Your task to perform on an android device: delete location history Image 0: 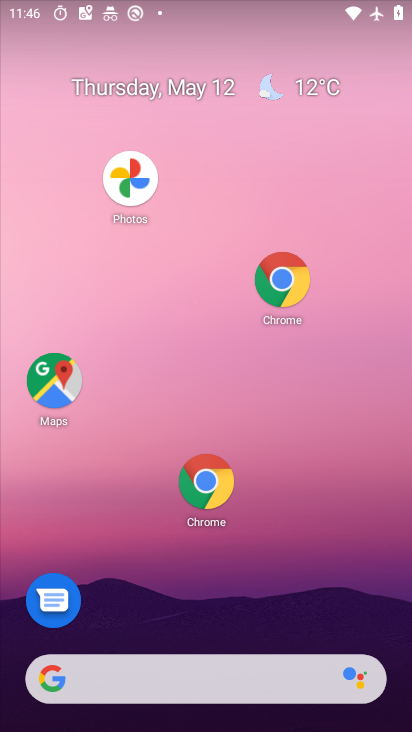
Step 0: drag from (212, 1) to (261, 13)
Your task to perform on an android device: delete location history Image 1: 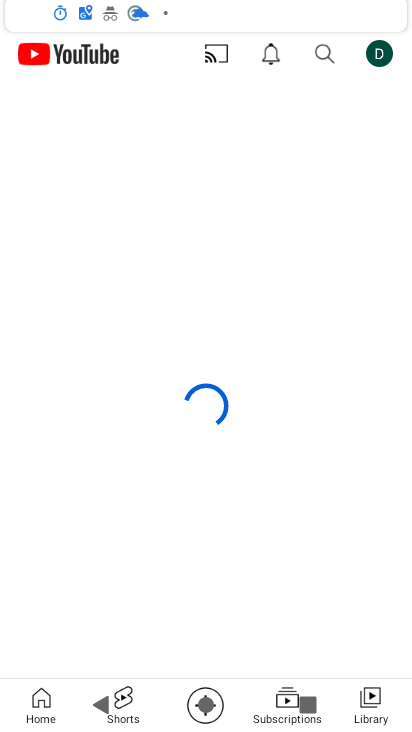
Step 1: drag from (276, 516) to (168, 76)
Your task to perform on an android device: delete location history Image 2: 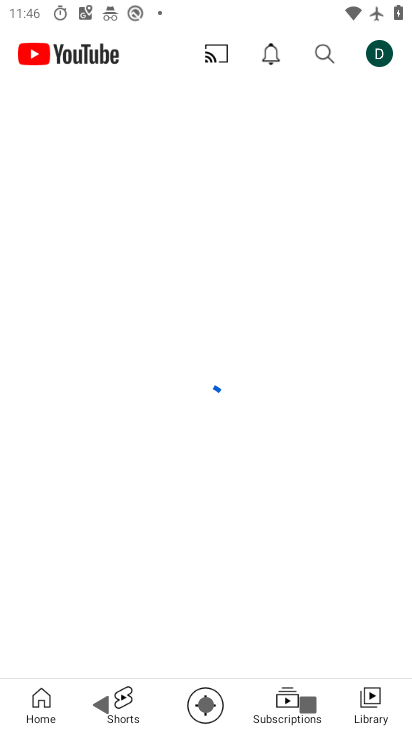
Step 2: drag from (278, 503) to (265, 44)
Your task to perform on an android device: delete location history Image 3: 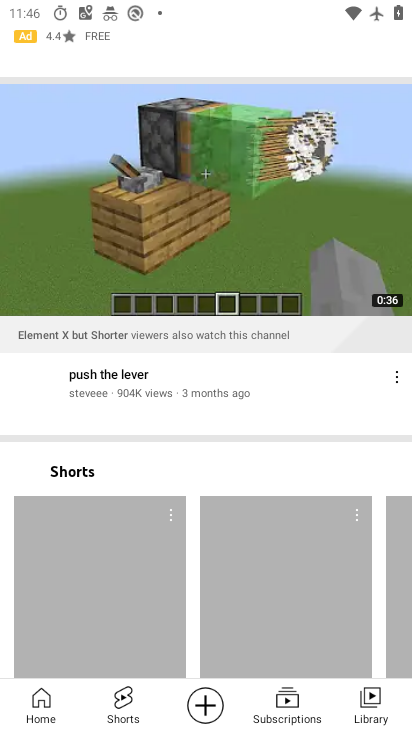
Step 3: drag from (289, 328) to (267, 160)
Your task to perform on an android device: delete location history Image 4: 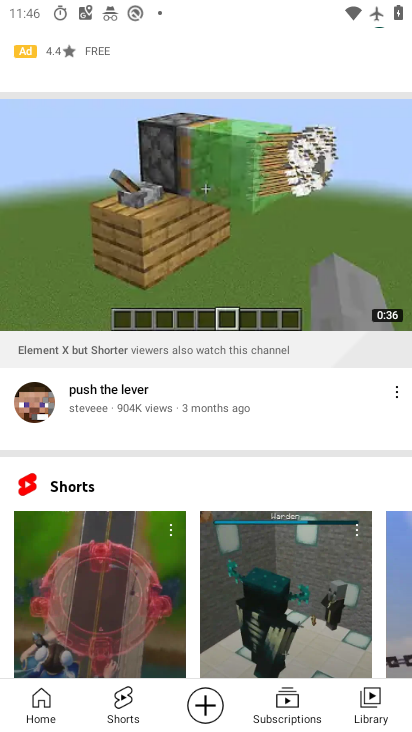
Step 4: press back button
Your task to perform on an android device: delete location history Image 5: 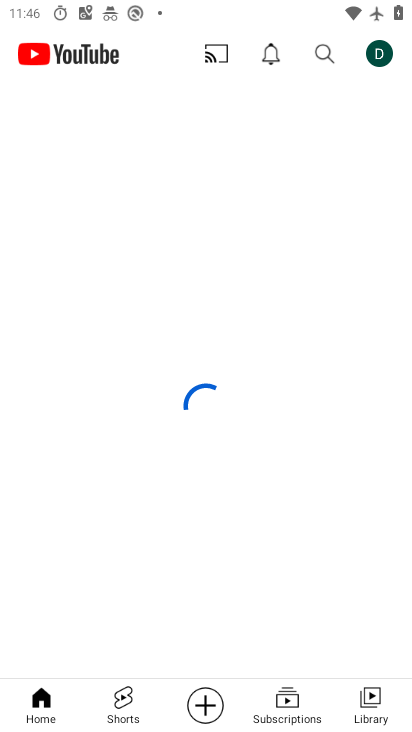
Step 5: drag from (220, 545) to (187, 226)
Your task to perform on an android device: delete location history Image 6: 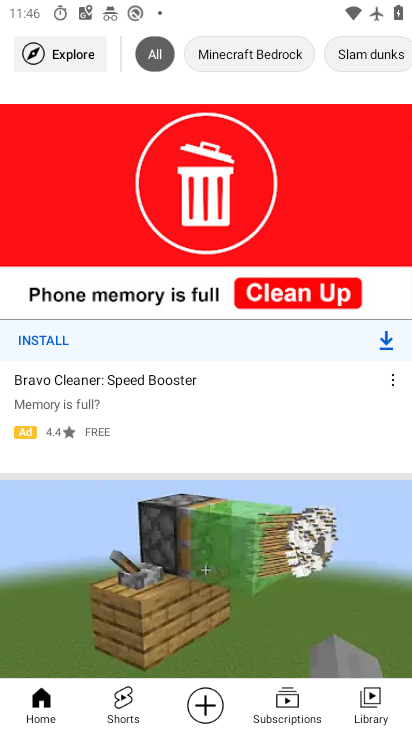
Step 6: drag from (244, 487) to (188, 225)
Your task to perform on an android device: delete location history Image 7: 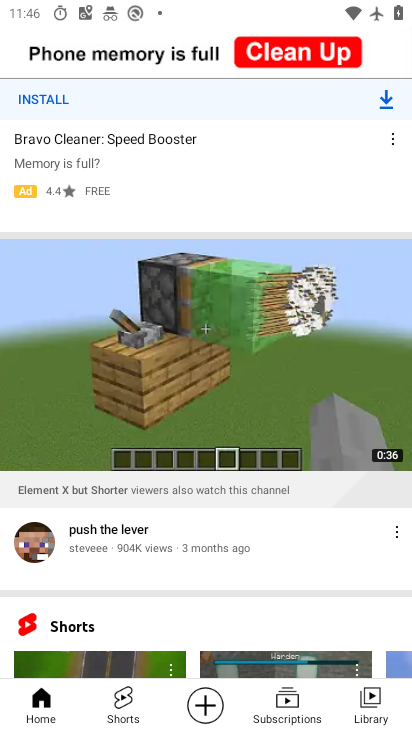
Step 7: drag from (268, 531) to (278, 279)
Your task to perform on an android device: delete location history Image 8: 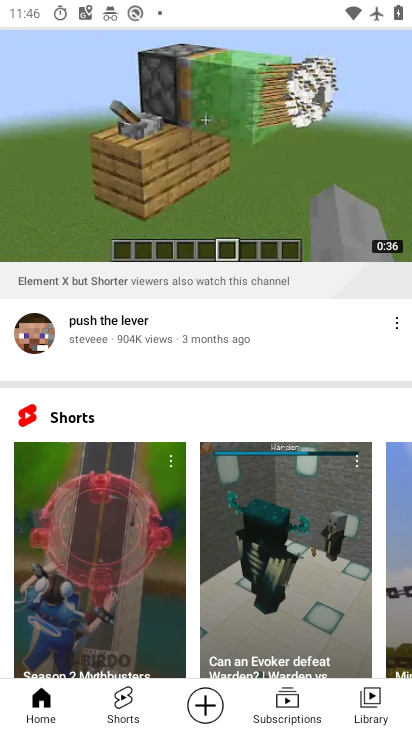
Step 8: drag from (306, 464) to (235, 167)
Your task to perform on an android device: delete location history Image 9: 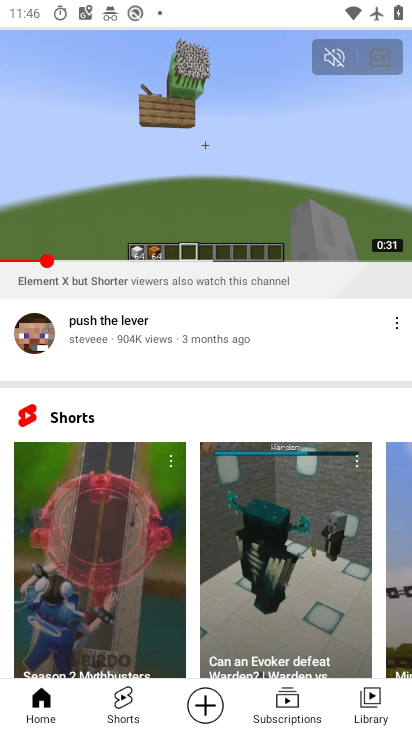
Step 9: press home button
Your task to perform on an android device: delete location history Image 10: 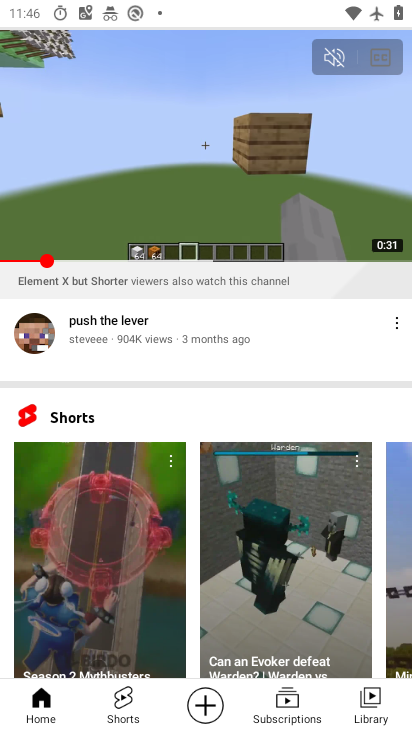
Step 10: press home button
Your task to perform on an android device: delete location history Image 11: 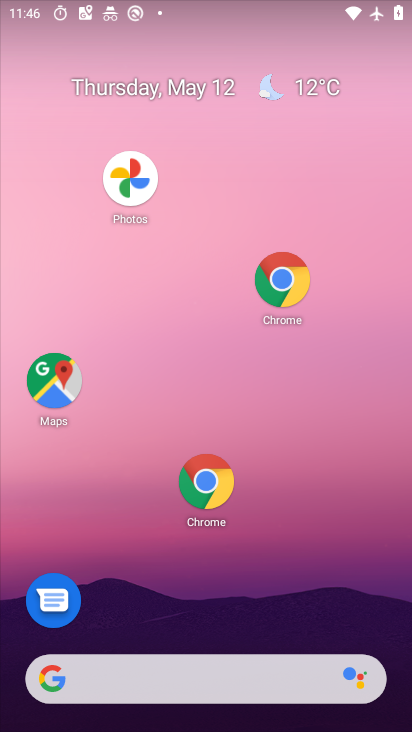
Step 11: drag from (343, 550) to (278, 75)
Your task to perform on an android device: delete location history Image 12: 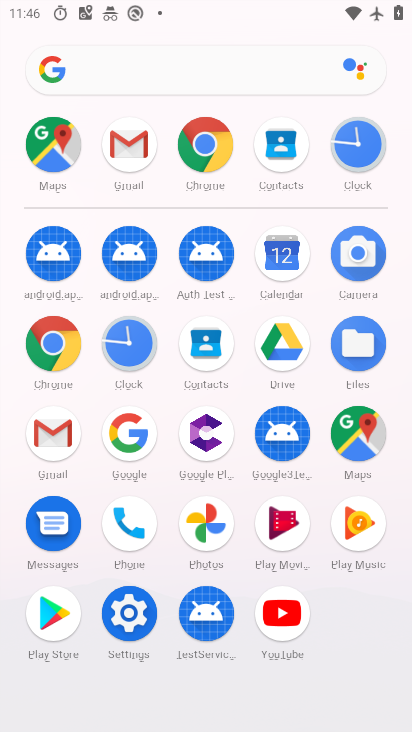
Step 12: click (352, 413)
Your task to perform on an android device: delete location history Image 13: 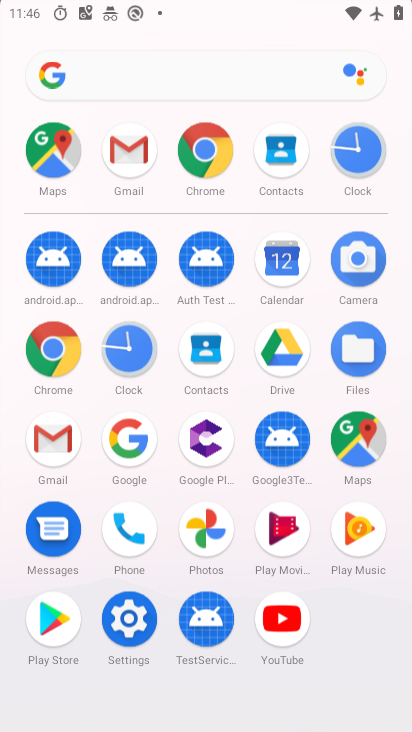
Step 13: click (358, 426)
Your task to perform on an android device: delete location history Image 14: 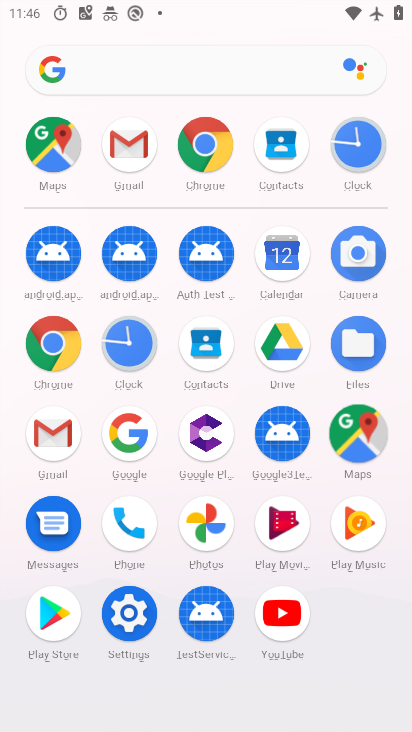
Step 14: click (360, 426)
Your task to perform on an android device: delete location history Image 15: 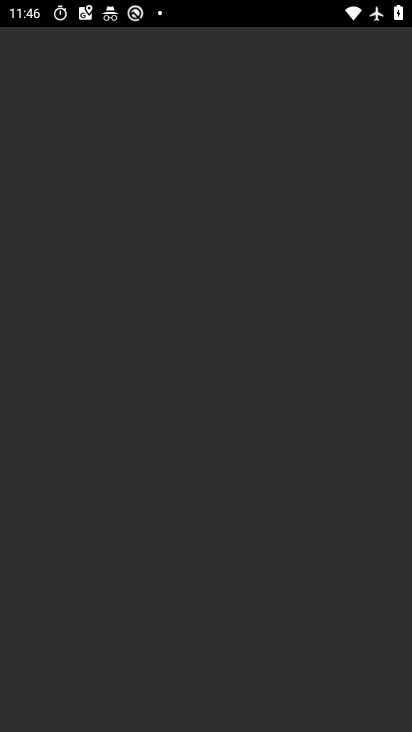
Step 15: click (362, 429)
Your task to perform on an android device: delete location history Image 16: 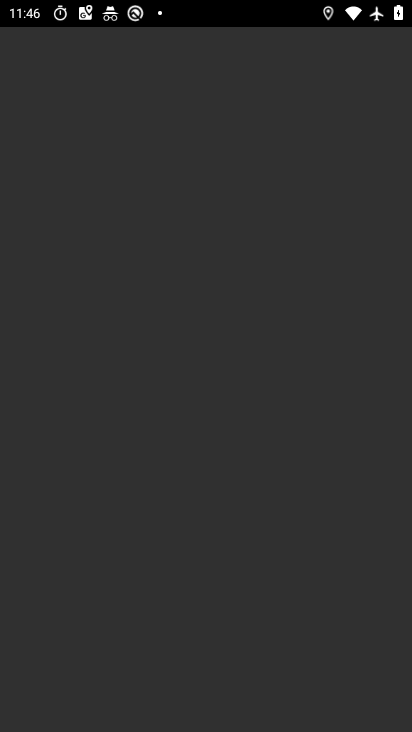
Step 16: click (367, 416)
Your task to perform on an android device: delete location history Image 17: 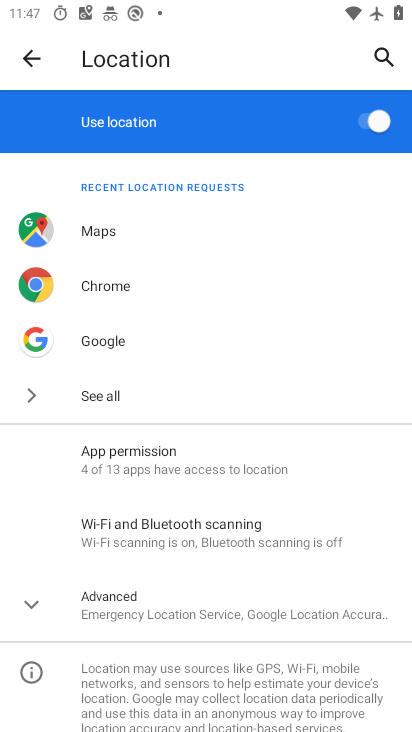
Step 17: click (44, 58)
Your task to perform on an android device: delete location history Image 18: 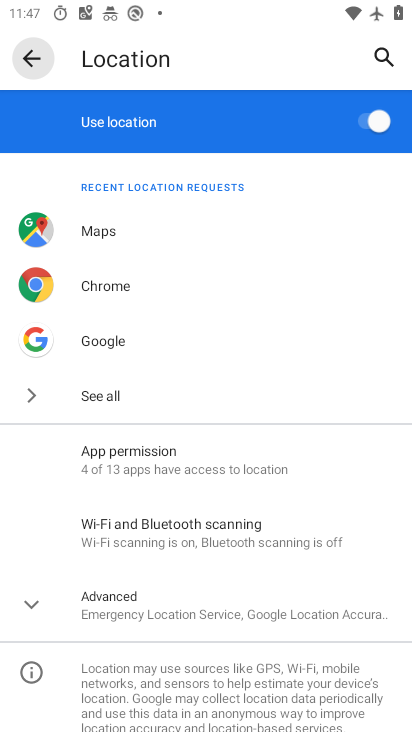
Step 18: click (41, 56)
Your task to perform on an android device: delete location history Image 19: 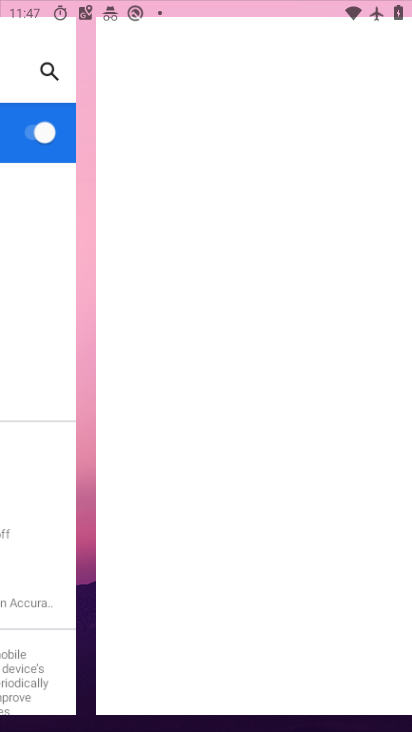
Step 19: click (41, 56)
Your task to perform on an android device: delete location history Image 20: 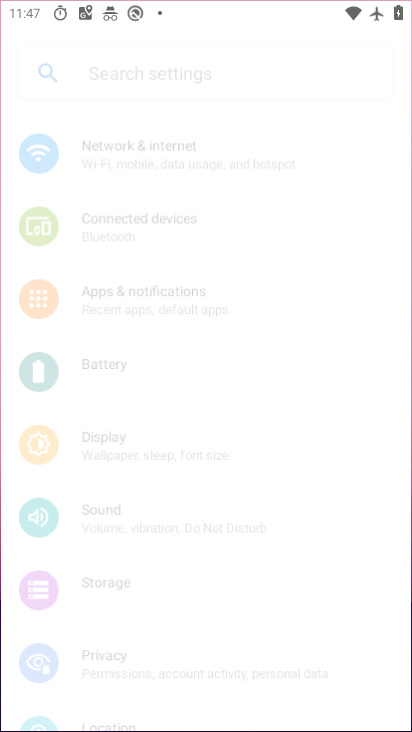
Step 20: click (44, 58)
Your task to perform on an android device: delete location history Image 21: 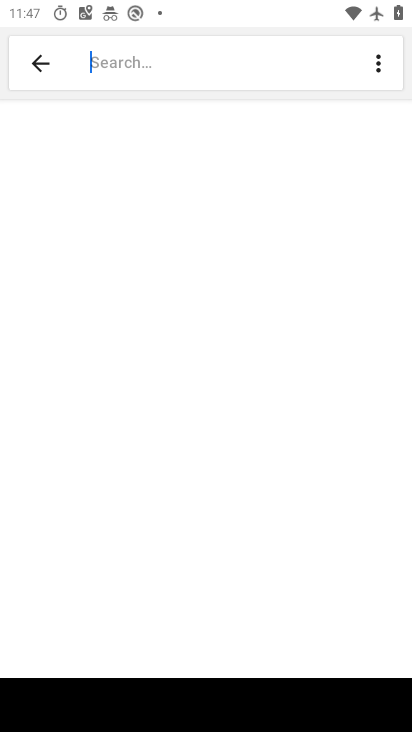
Step 21: click (35, 66)
Your task to perform on an android device: delete location history Image 22: 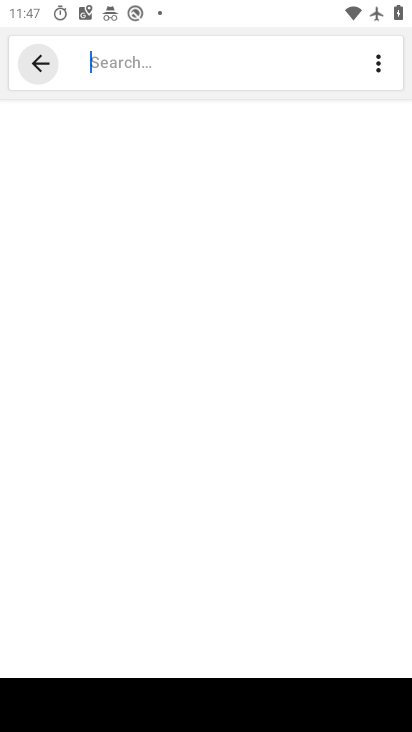
Step 22: click (35, 66)
Your task to perform on an android device: delete location history Image 23: 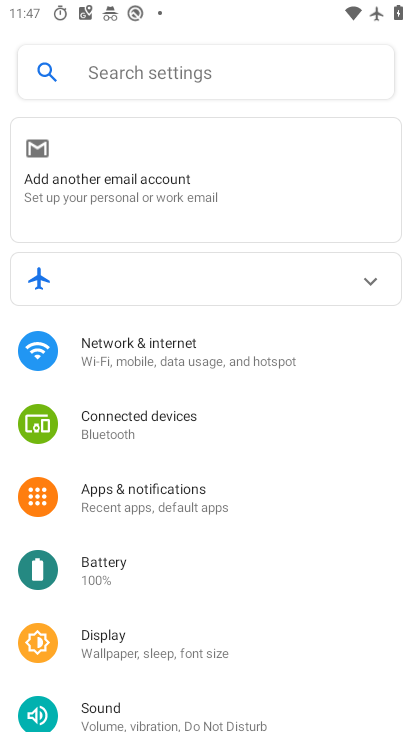
Step 23: drag from (184, 545) to (189, 259)
Your task to perform on an android device: delete location history Image 24: 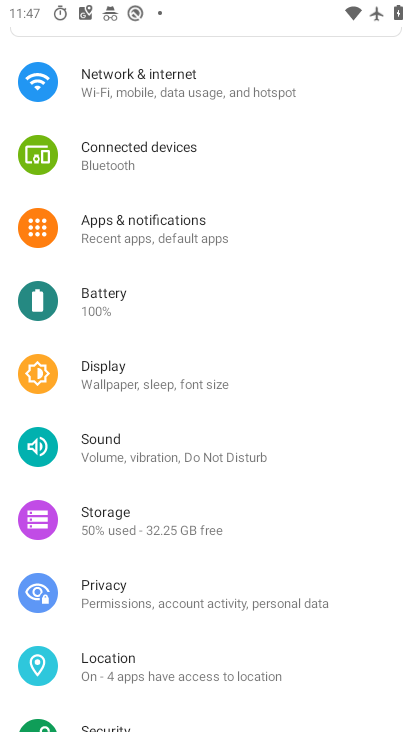
Step 24: drag from (274, 528) to (268, 277)
Your task to perform on an android device: delete location history Image 25: 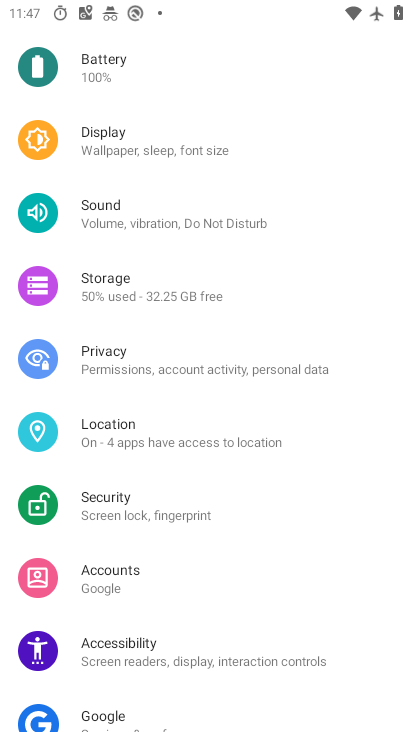
Step 25: drag from (296, 458) to (329, 91)
Your task to perform on an android device: delete location history Image 26: 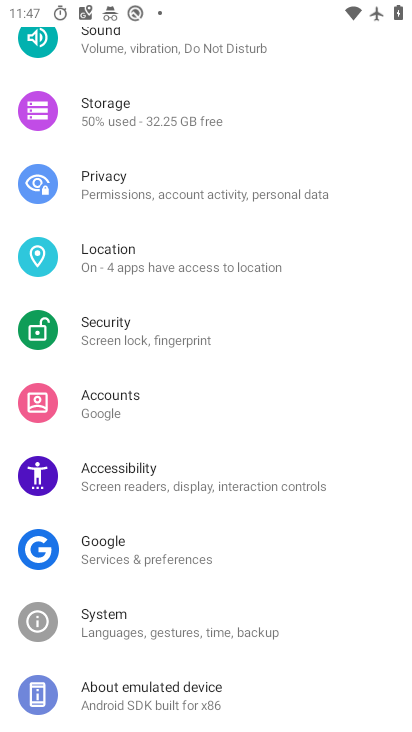
Step 26: drag from (161, 324) to (176, 647)
Your task to perform on an android device: delete location history Image 27: 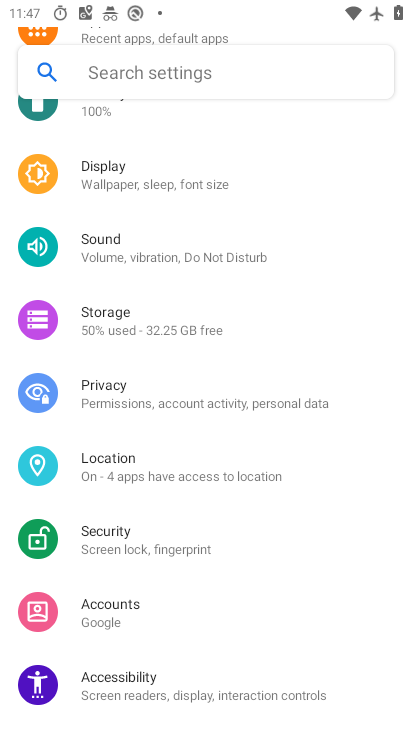
Step 27: drag from (171, 314) to (231, 651)
Your task to perform on an android device: delete location history Image 28: 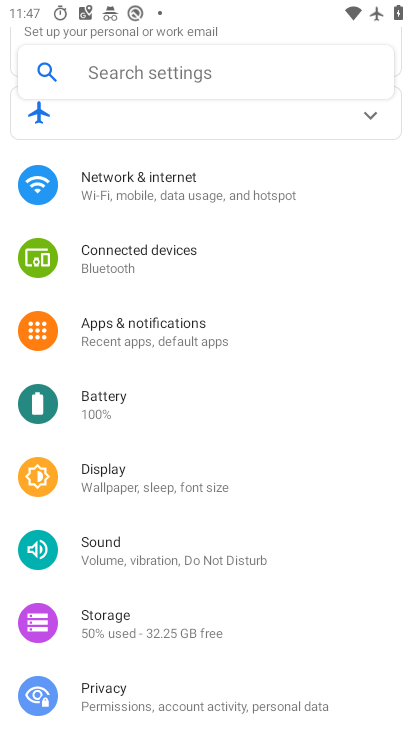
Step 28: drag from (232, 377) to (295, 582)
Your task to perform on an android device: delete location history Image 29: 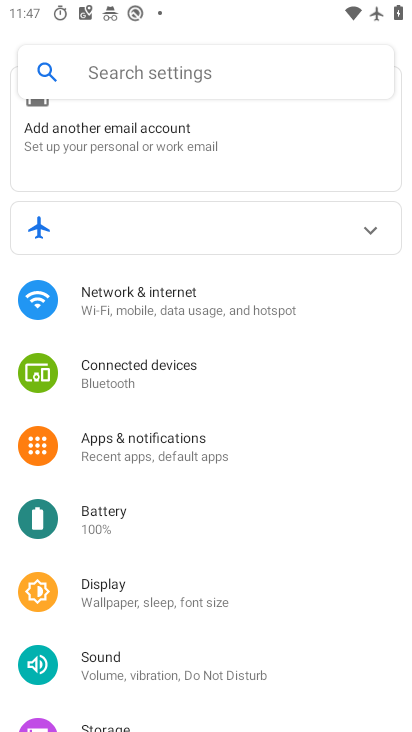
Step 29: drag from (274, 316) to (324, 615)
Your task to perform on an android device: delete location history Image 30: 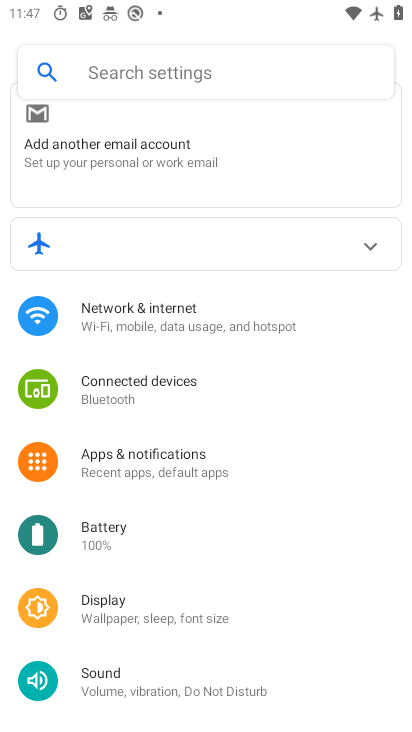
Step 30: drag from (315, 257) to (310, 590)
Your task to perform on an android device: delete location history Image 31: 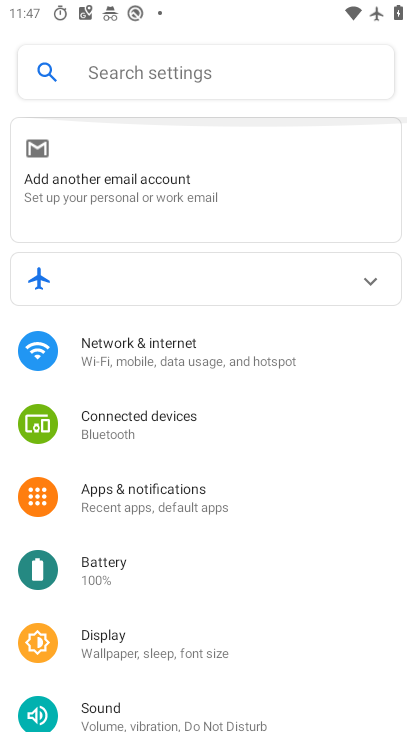
Step 31: drag from (264, 425) to (270, 463)
Your task to perform on an android device: delete location history Image 32: 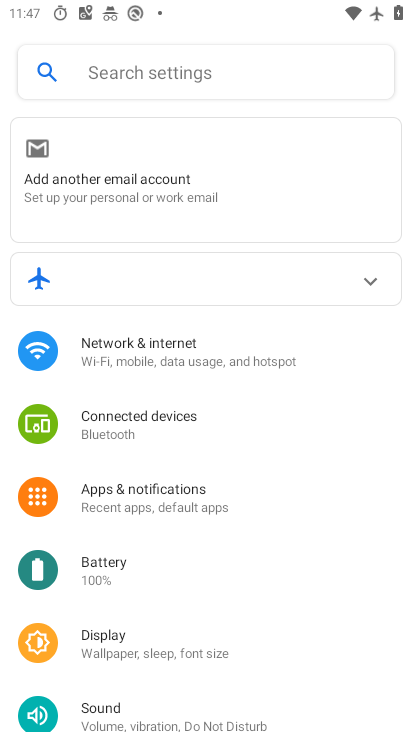
Step 32: press home button
Your task to perform on an android device: delete location history Image 33: 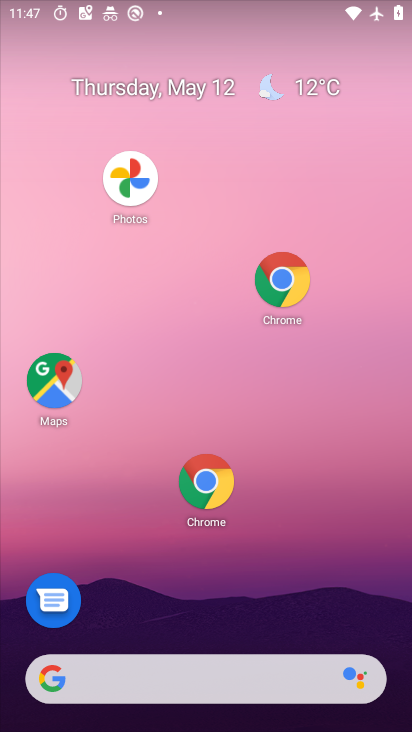
Step 33: drag from (349, 615) to (139, 145)
Your task to perform on an android device: delete location history Image 34: 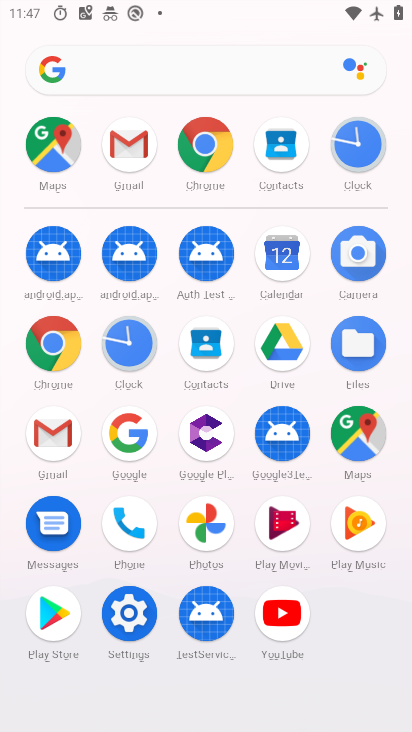
Step 34: click (53, 154)
Your task to perform on an android device: delete location history Image 35: 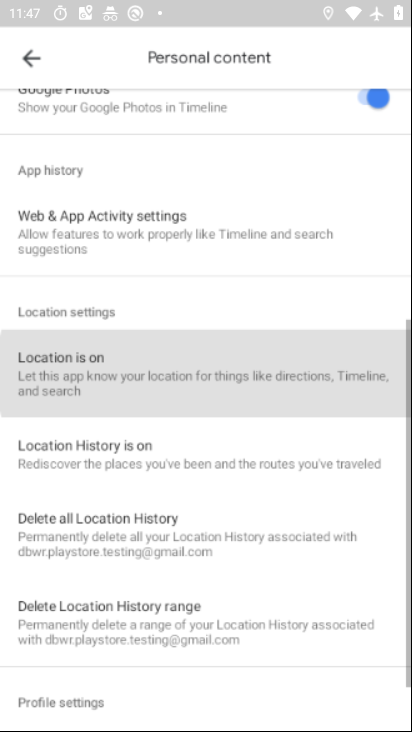
Step 35: click (53, 154)
Your task to perform on an android device: delete location history Image 36: 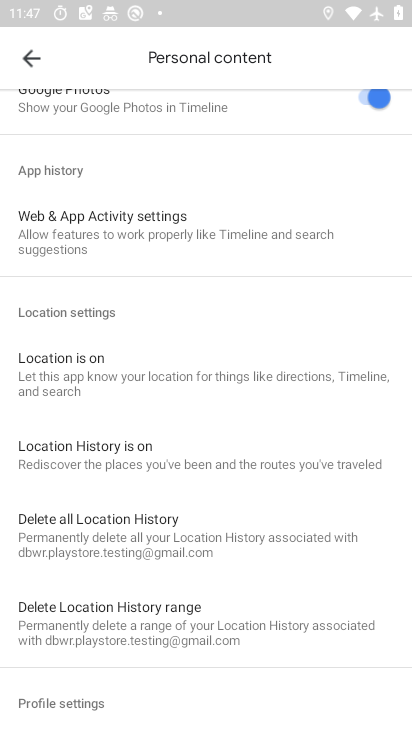
Step 36: click (85, 442)
Your task to perform on an android device: delete location history Image 37: 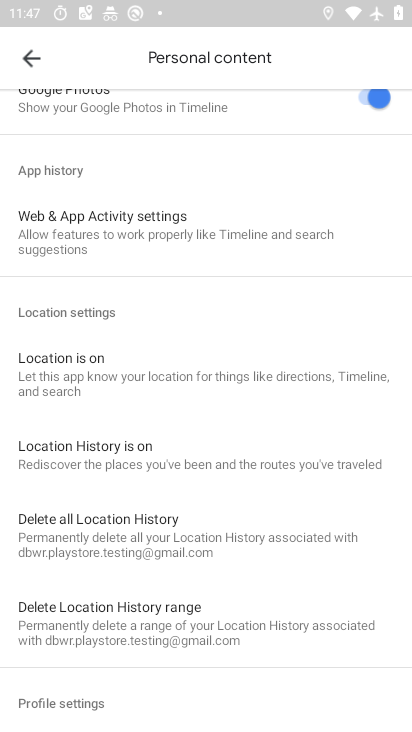
Step 37: click (72, 530)
Your task to perform on an android device: delete location history Image 38: 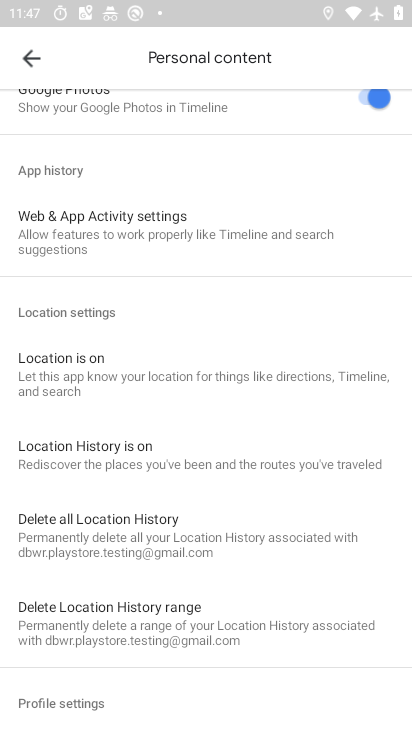
Step 38: click (74, 526)
Your task to perform on an android device: delete location history Image 39: 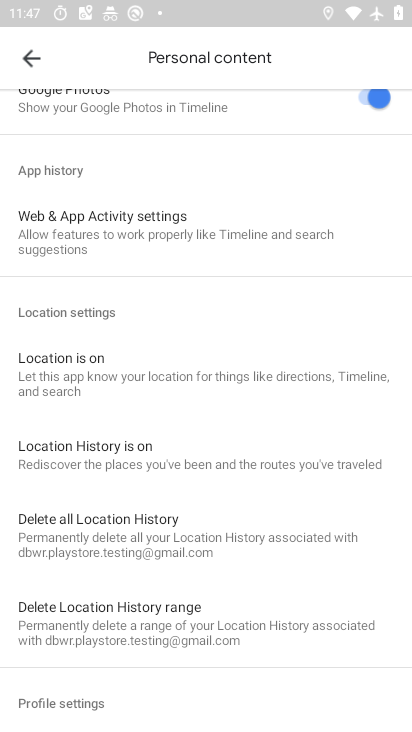
Step 39: click (74, 526)
Your task to perform on an android device: delete location history Image 40: 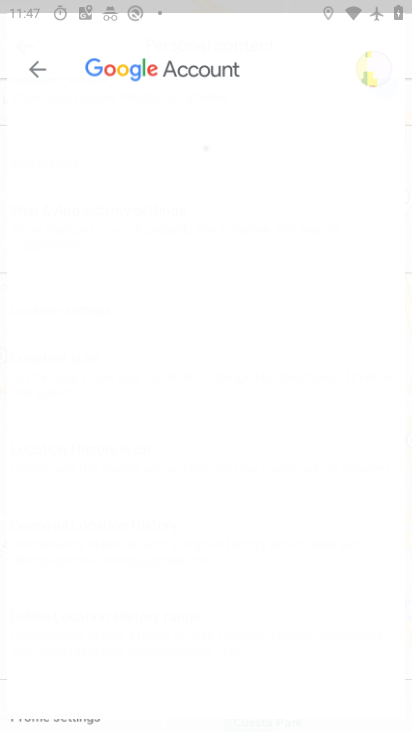
Step 40: click (75, 527)
Your task to perform on an android device: delete location history Image 41: 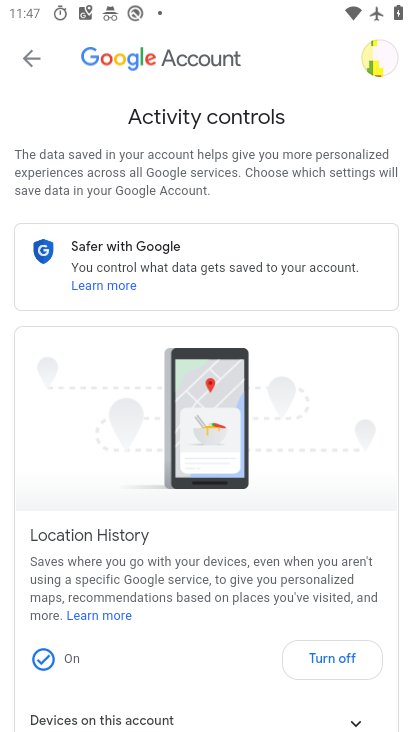
Step 41: drag from (269, 576) to (194, 108)
Your task to perform on an android device: delete location history Image 42: 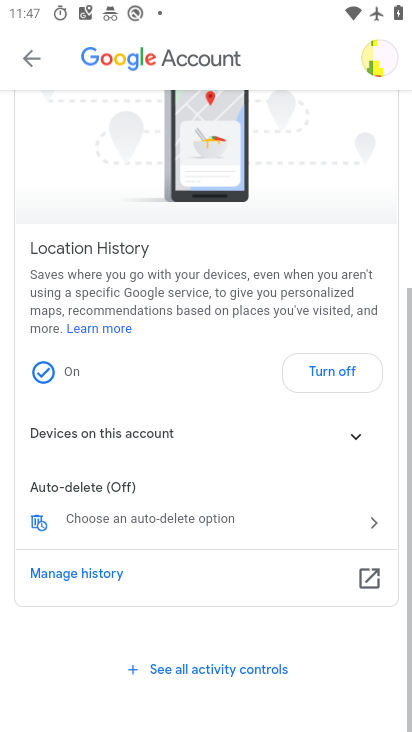
Step 42: drag from (276, 432) to (258, 32)
Your task to perform on an android device: delete location history Image 43: 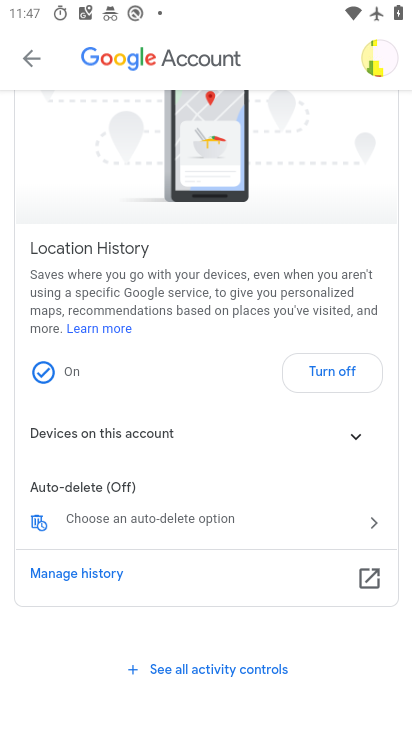
Step 43: drag from (277, 347) to (287, 96)
Your task to perform on an android device: delete location history Image 44: 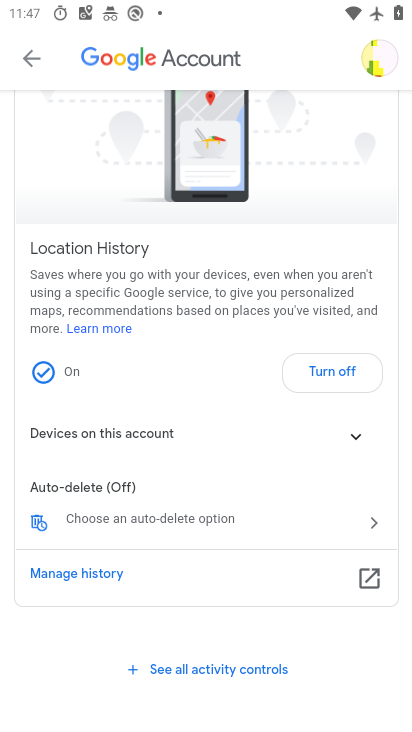
Step 44: drag from (288, 347) to (275, 50)
Your task to perform on an android device: delete location history Image 45: 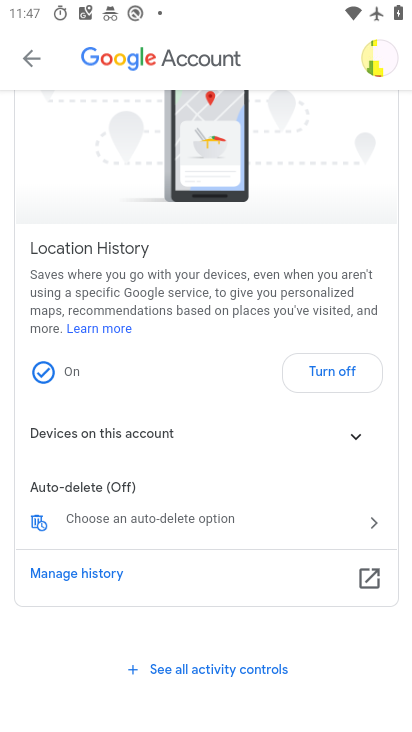
Step 45: drag from (192, 492) to (278, 121)
Your task to perform on an android device: delete location history Image 46: 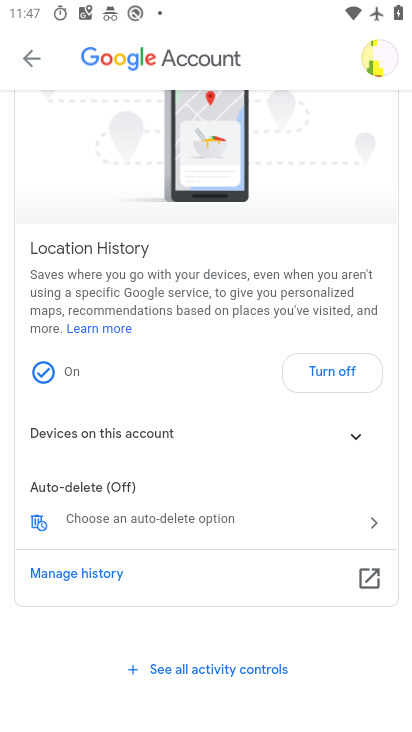
Step 46: drag from (274, 443) to (220, 161)
Your task to perform on an android device: delete location history Image 47: 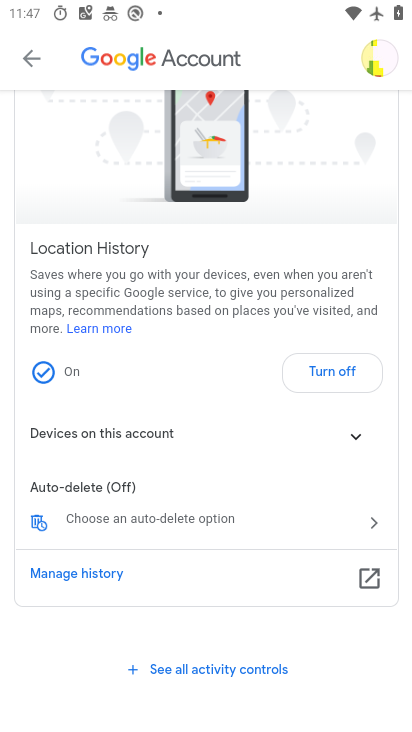
Step 47: drag from (131, 422) to (118, 177)
Your task to perform on an android device: delete location history Image 48: 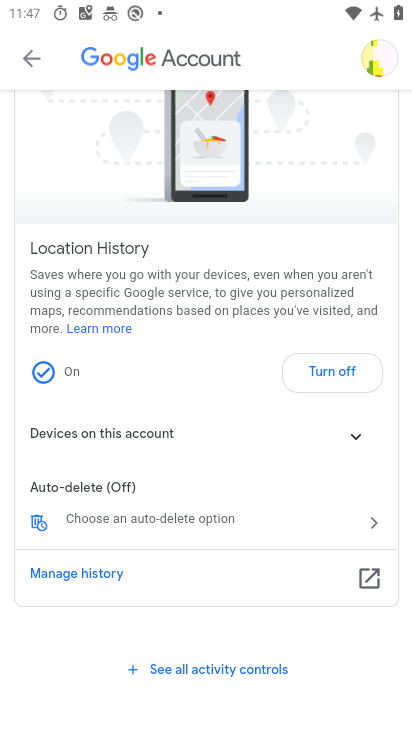
Step 48: drag from (178, 396) to (120, 115)
Your task to perform on an android device: delete location history Image 49: 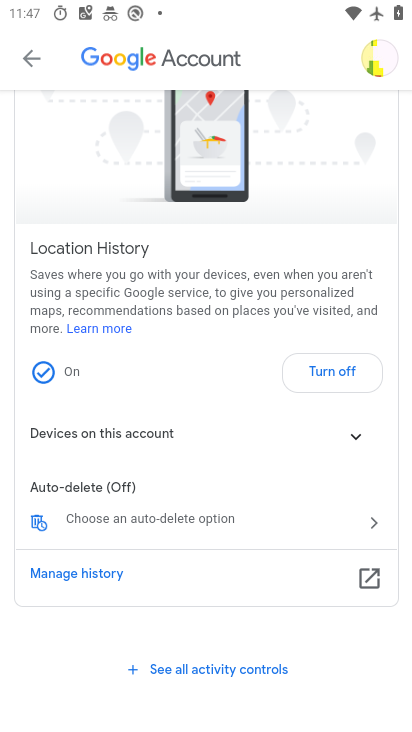
Step 49: drag from (204, 568) to (204, 184)
Your task to perform on an android device: delete location history Image 50: 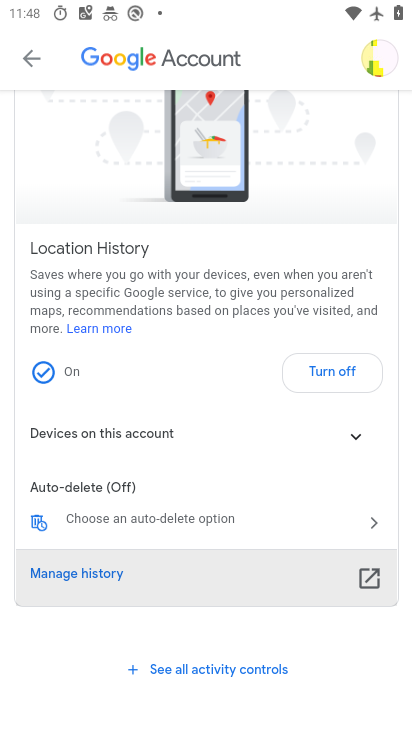
Step 50: drag from (134, 430) to (142, 238)
Your task to perform on an android device: delete location history Image 51: 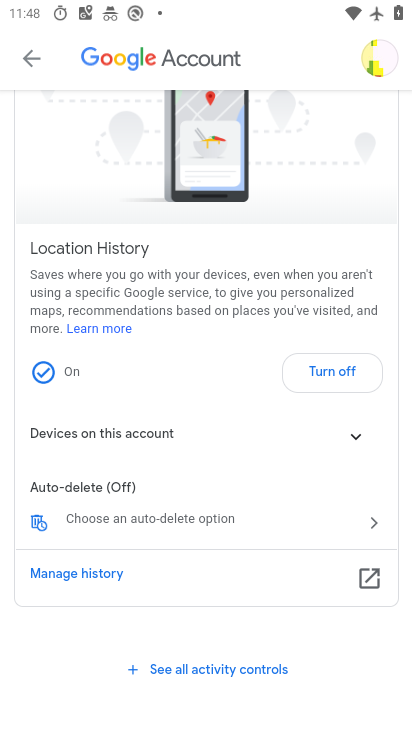
Step 51: drag from (162, 416) to (198, 218)
Your task to perform on an android device: delete location history Image 52: 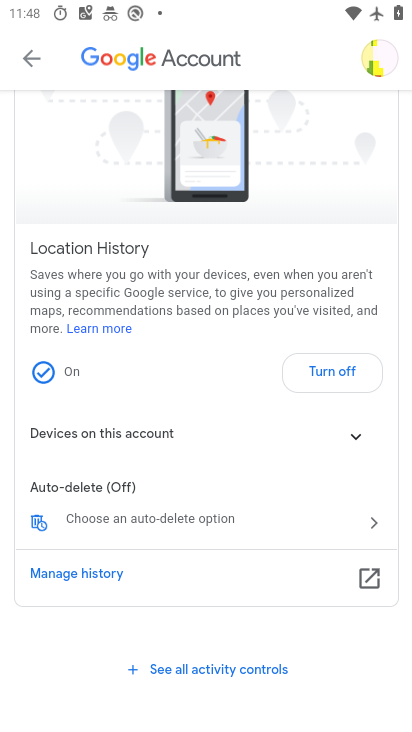
Step 52: click (246, 308)
Your task to perform on an android device: delete location history Image 53: 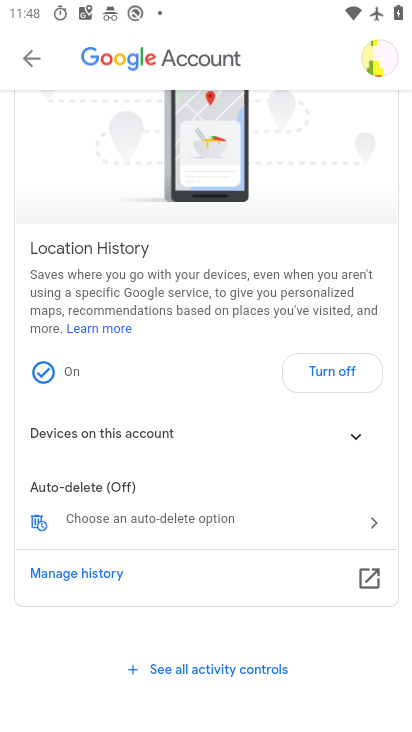
Step 53: click (100, 484)
Your task to perform on an android device: delete location history Image 54: 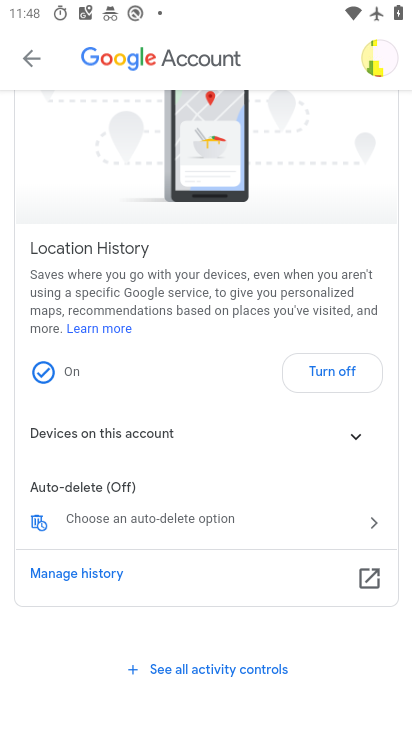
Step 54: click (100, 484)
Your task to perform on an android device: delete location history Image 55: 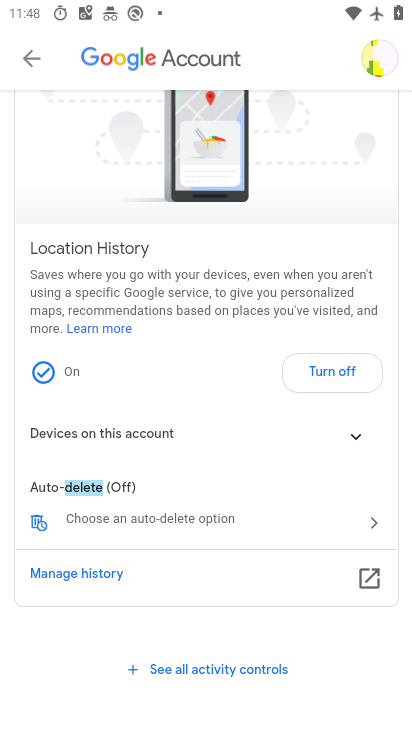
Step 55: click (101, 484)
Your task to perform on an android device: delete location history Image 56: 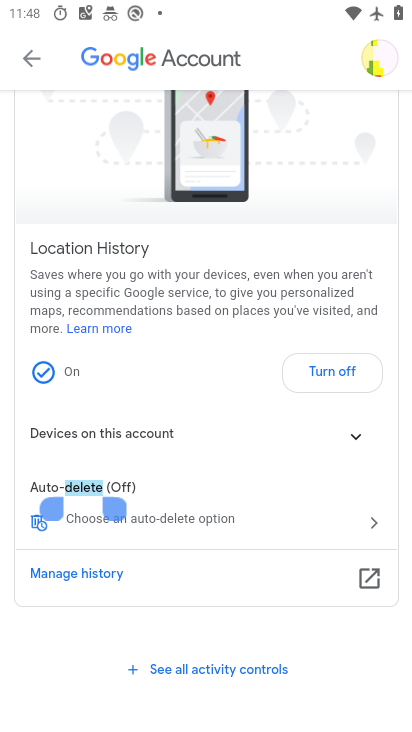
Step 56: click (101, 484)
Your task to perform on an android device: delete location history Image 57: 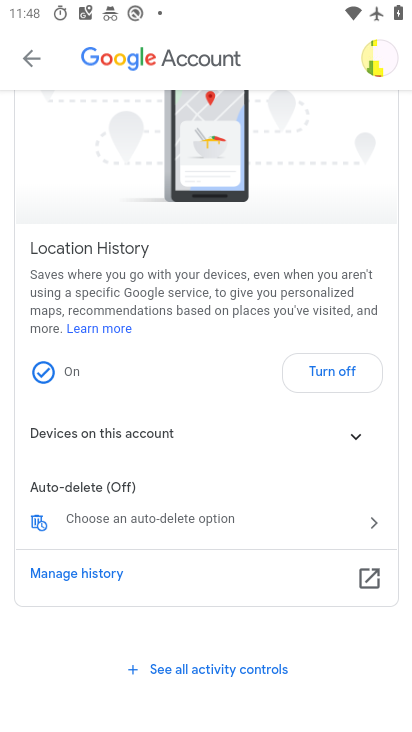
Step 57: click (121, 484)
Your task to perform on an android device: delete location history Image 58: 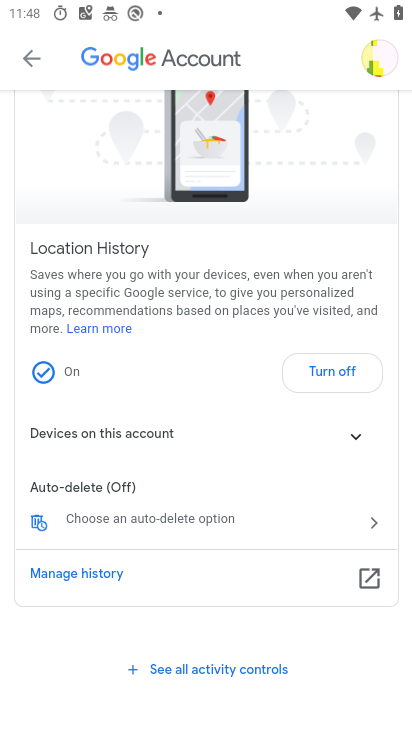
Step 58: click (13, 480)
Your task to perform on an android device: delete location history Image 59: 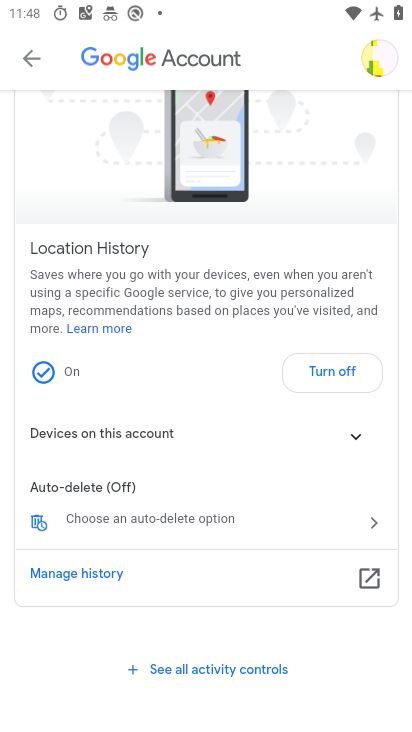
Step 59: click (49, 487)
Your task to perform on an android device: delete location history Image 60: 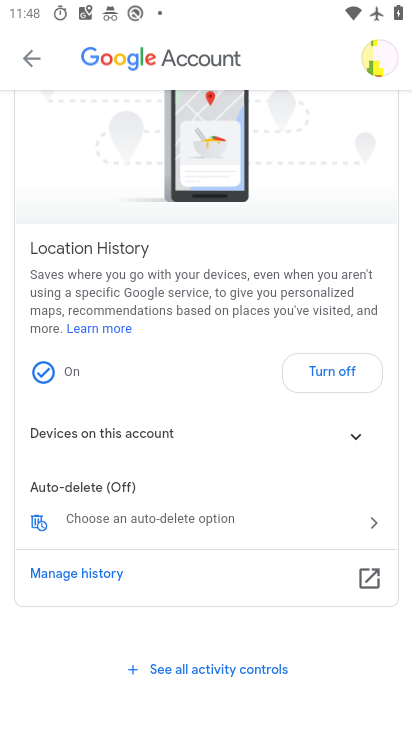
Step 60: click (49, 487)
Your task to perform on an android device: delete location history Image 61: 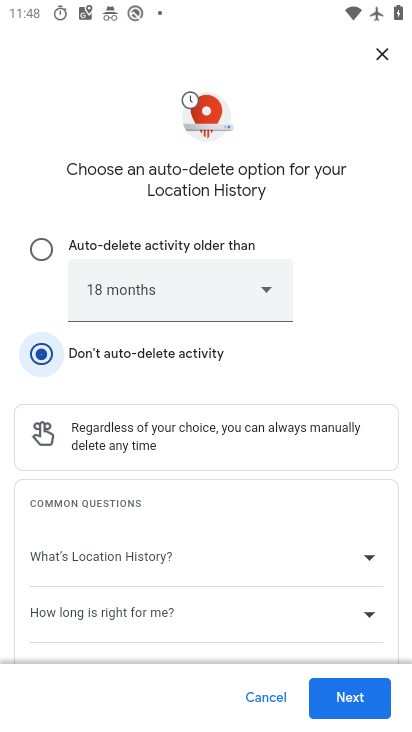
Step 61: click (277, 691)
Your task to perform on an android device: delete location history Image 62: 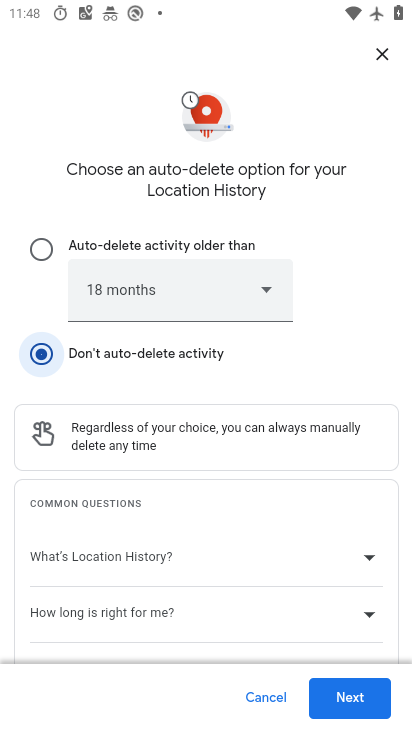
Step 62: click (276, 692)
Your task to perform on an android device: delete location history Image 63: 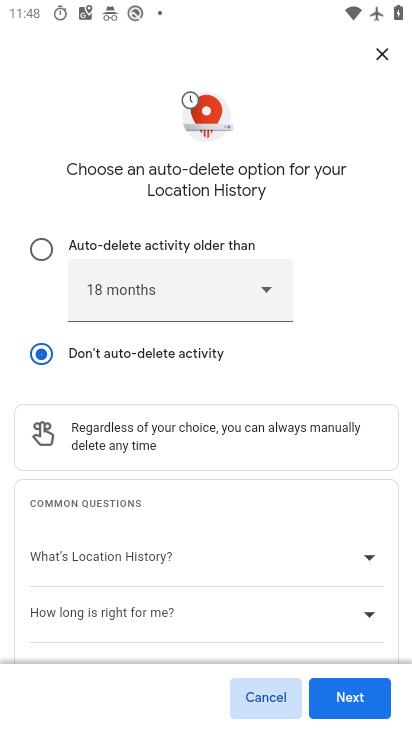
Step 63: click (276, 692)
Your task to perform on an android device: delete location history Image 64: 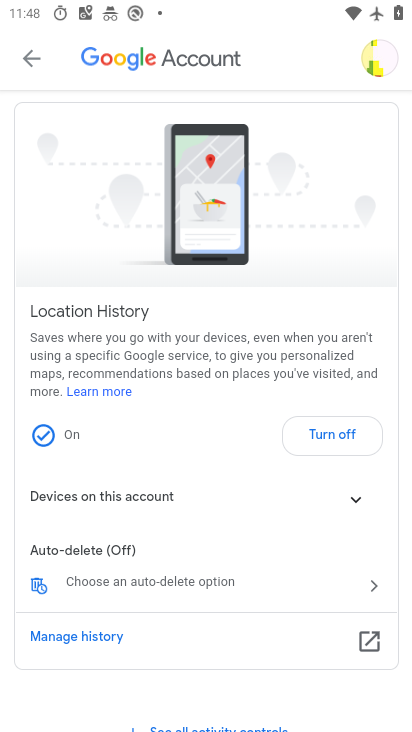
Step 64: task complete